Your task to perform on an android device: allow notifications from all sites in the chrome app Image 0: 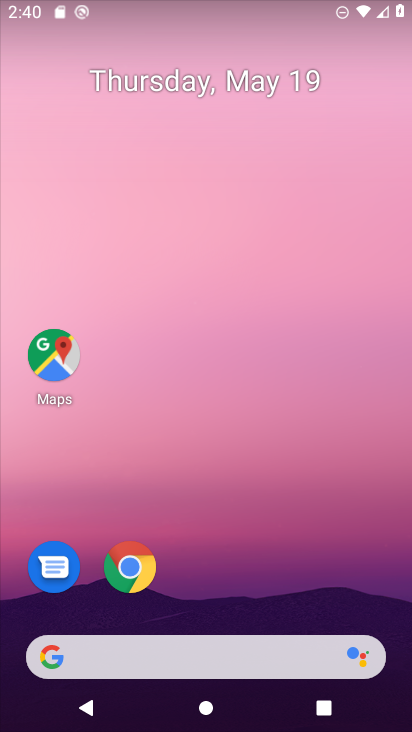
Step 0: click (143, 566)
Your task to perform on an android device: allow notifications from all sites in the chrome app Image 1: 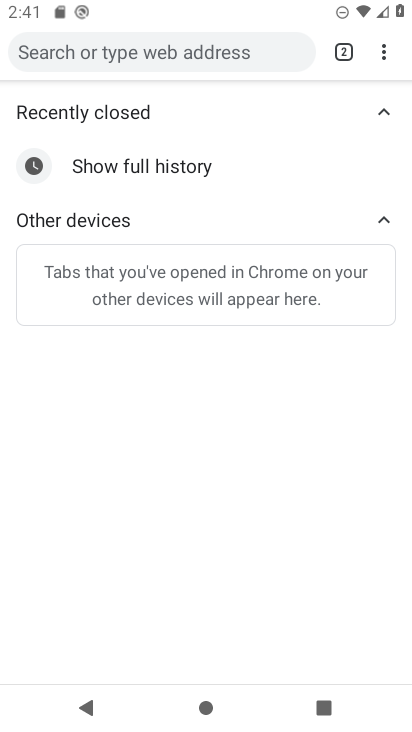
Step 1: click (384, 50)
Your task to perform on an android device: allow notifications from all sites in the chrome app Image 2: 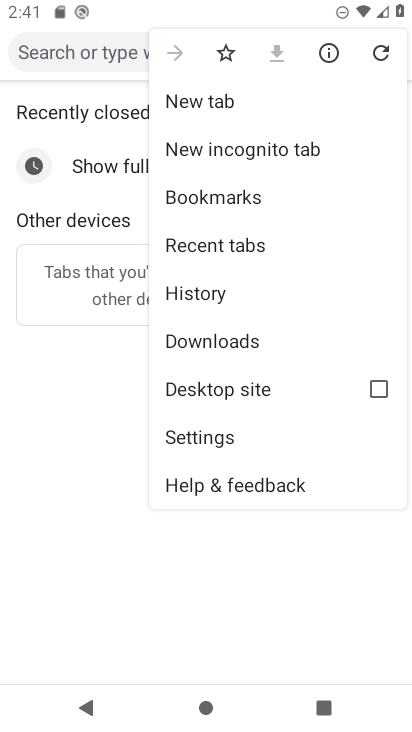
Step 2: click (244, 436)
Your task to perform on an android device: allow notifications from all sites in the chrome app Image 3: 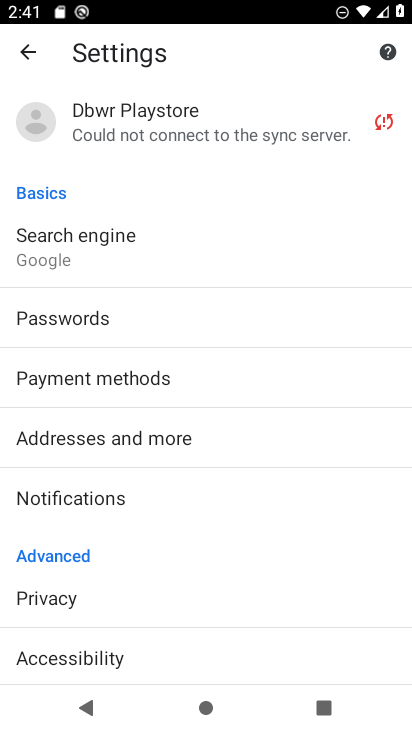
Step 3: click (231, 486)
Your task to perform on an android device: allow notifications from all sites in the chrome app Image 4: 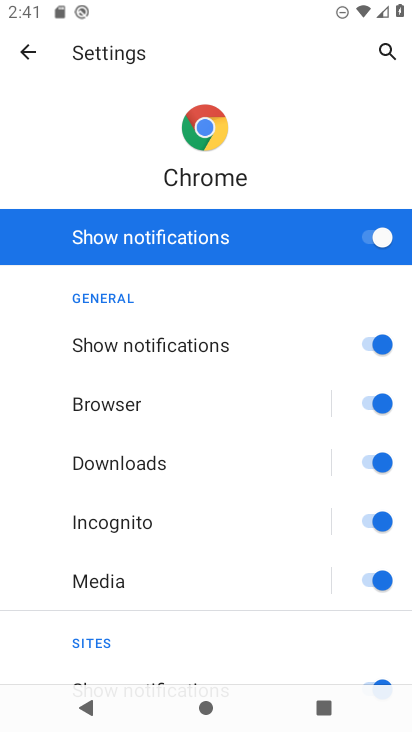
Step 4: task complete